Your task to perform on an android device: snooze an email in the gmail app Image 0: 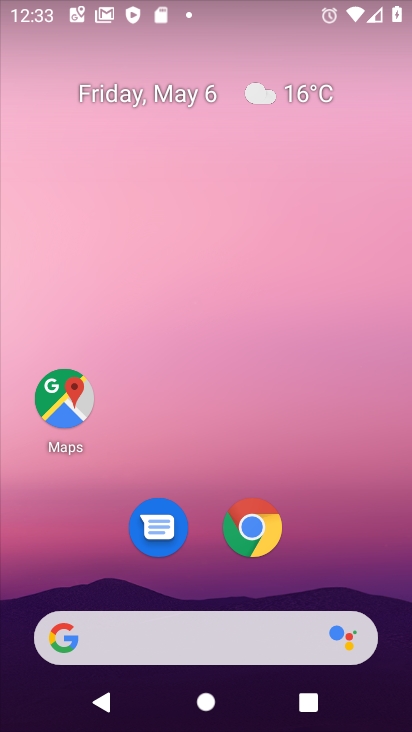
Step 0: drag from (168, 344) to (65, 78)
Your task to perform on an android device: snooze an email in the gmail app Image 1: 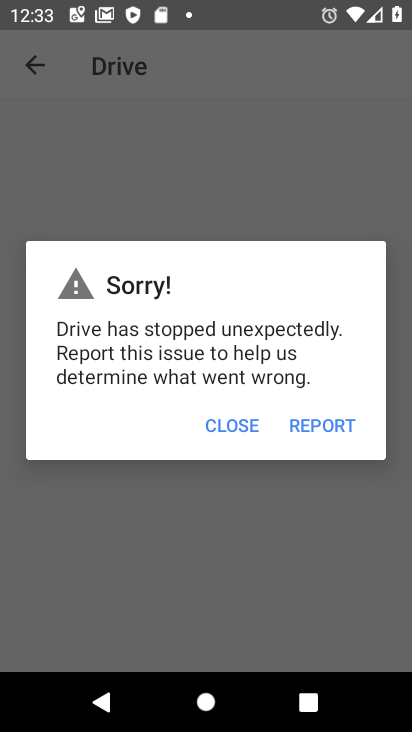
Step 1: press home button
Your task to perform on an android device: snooze an email in the gmail app Image 2: 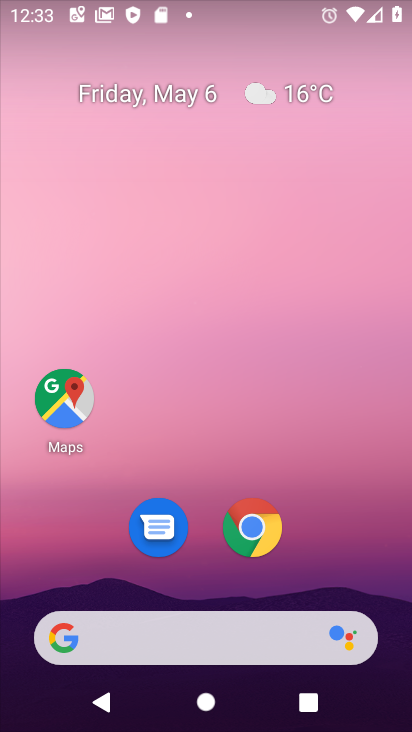
Step 2: drag from (318, 518) to (58, 59)
Your task to perform on an android device: snooze an email in the gmail app Image 3: 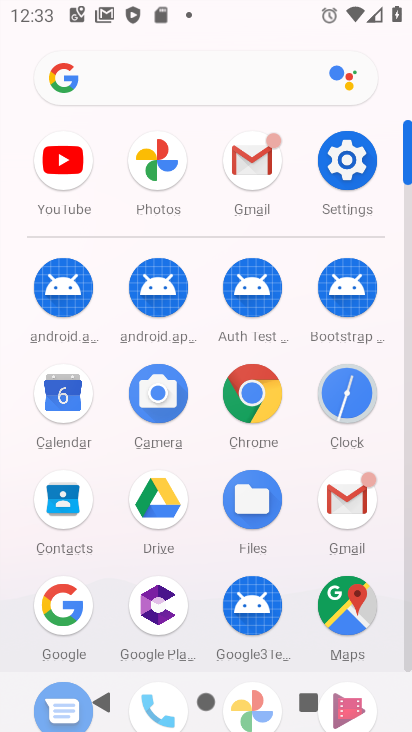
Step 3: click (355, 496)
Your task to perform on an android device: snooze an email in the gmail app Image 4: 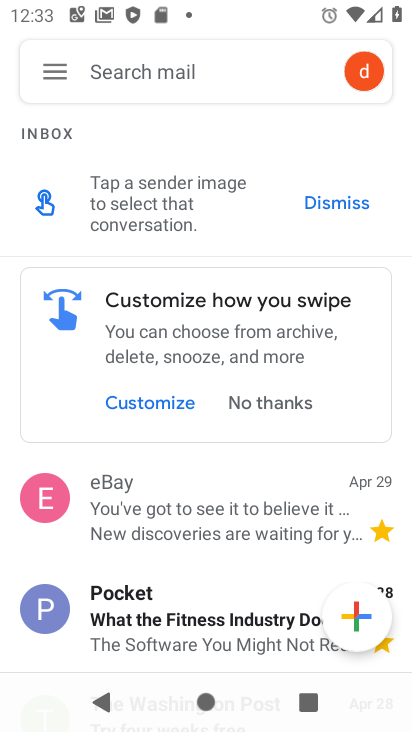
Step 4: click (173, 519)
Your task to perform on an android device: snooze an email in the gmail app Image 5: 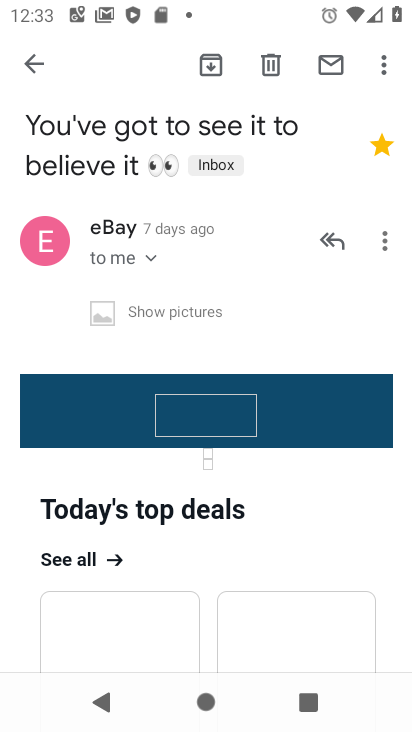
Step 5: click (381, 60)
Your task to perform on an android device: snooze an email in the gmail app Image 6: 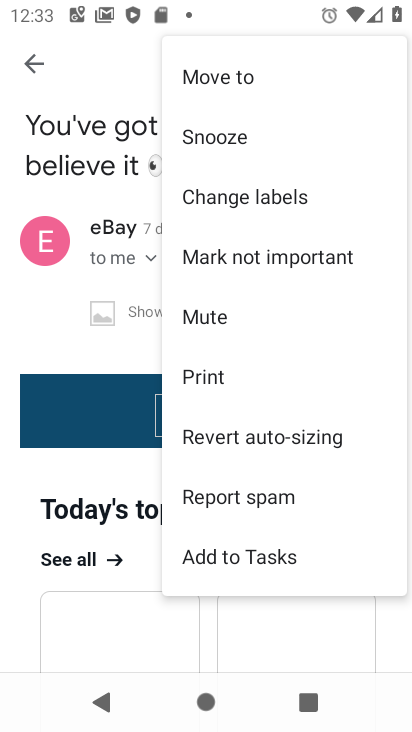
Step 6: click (198, 130)
Your task to perform on an android device: snooze an email in the gmail app Image 7: 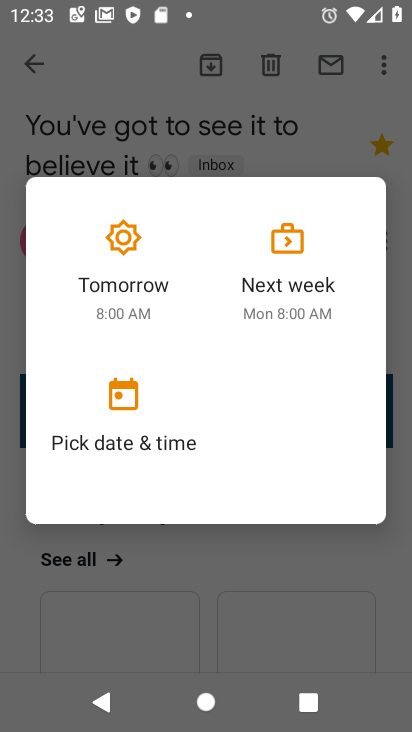
Step 7: click (276, 262)
Your task to perform on an android device: snooze an email in the gmail app Image 8: 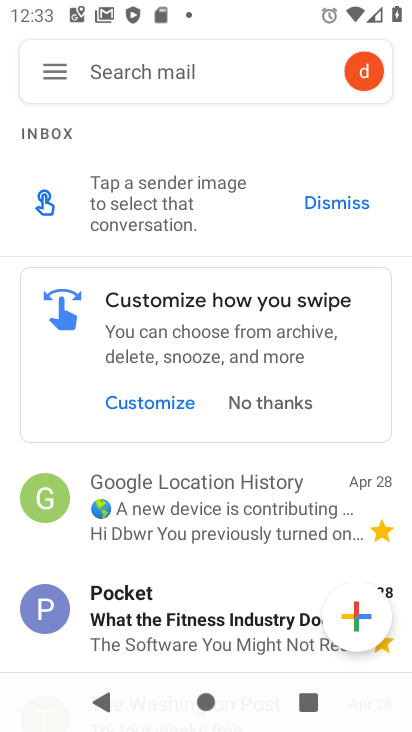
Step 8: task complete